Your task to perform on an android device: Open Chrome and go to settings Image 0: 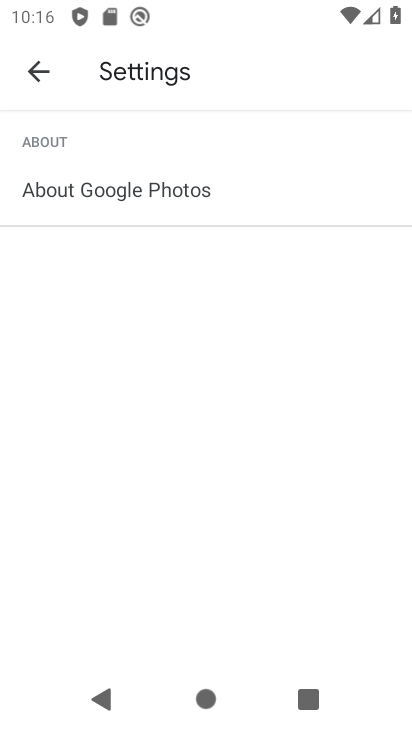
Step 0: press home button
Your task to perform on an android device: Open Chrome and go to settings Image 1: 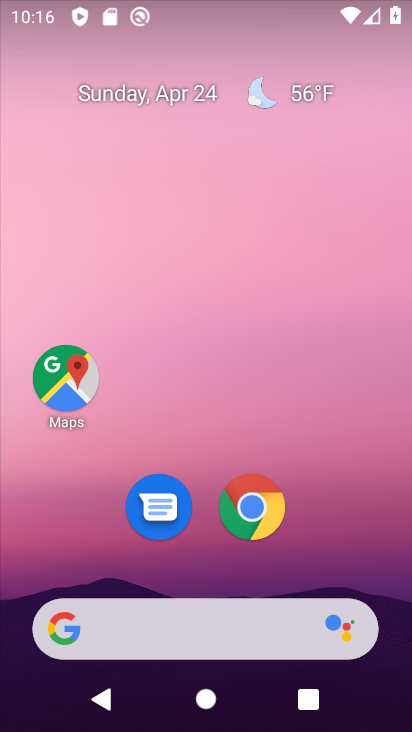
Step 1: click (243, 500)
Your task to perform on an android device: Open Chrome and go to settings Image 2: 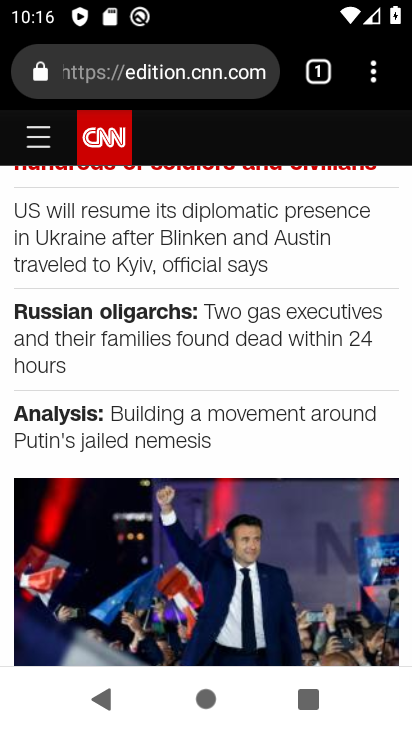
Step 2: click (373, 71)
Your task to perform on an android device: Open Chrome and go to settings Image 3: 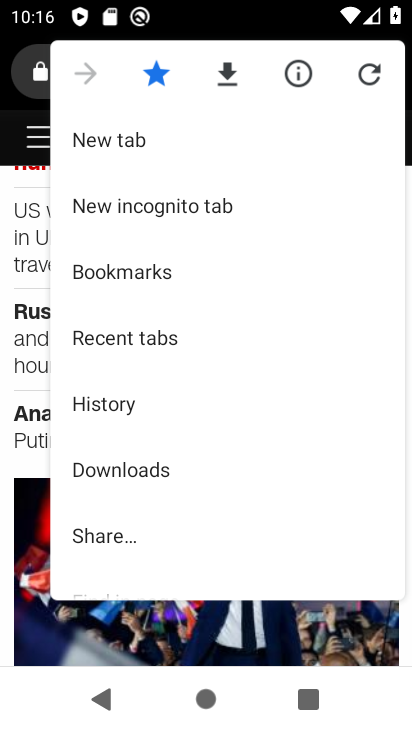
Step 3: drag from (194, 488) to (270, 142)
Your task to perform on an android device: Open Chrome and go to settings Image 4: 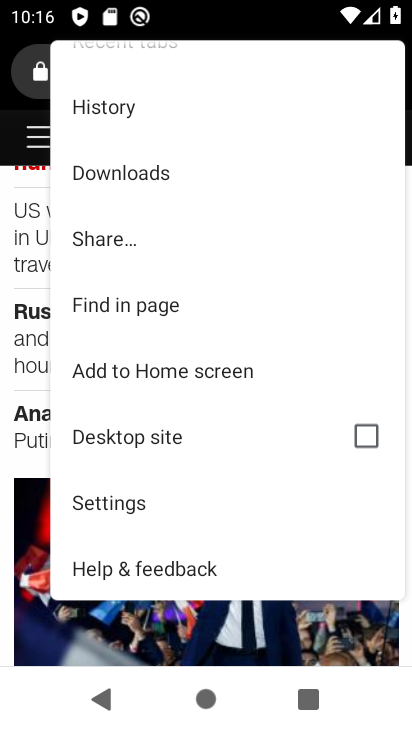
Step 4: click (124, 495)
Your task to perform on an android device: Open Chrome and go to settings Image 5: 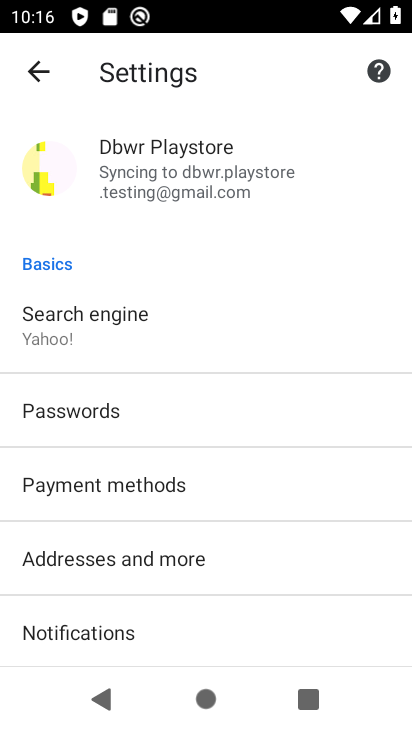
Step 5: task complete